Your task to perform on an android device: set the timer Image 0: 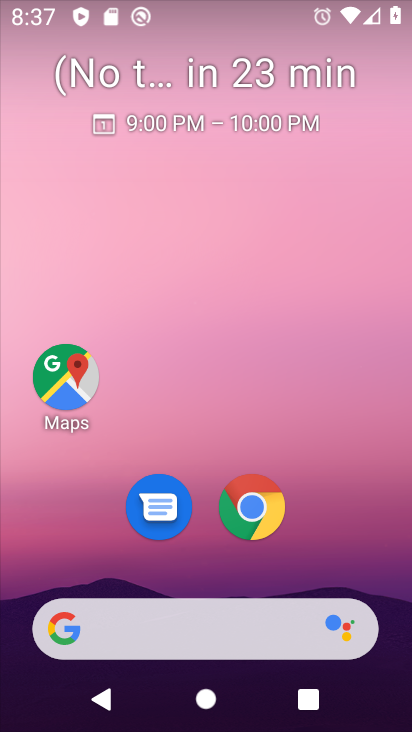
Step 0: drag from (355, 560) to (317, 178)
Your task to perform on an android device: set the timer Image 1: 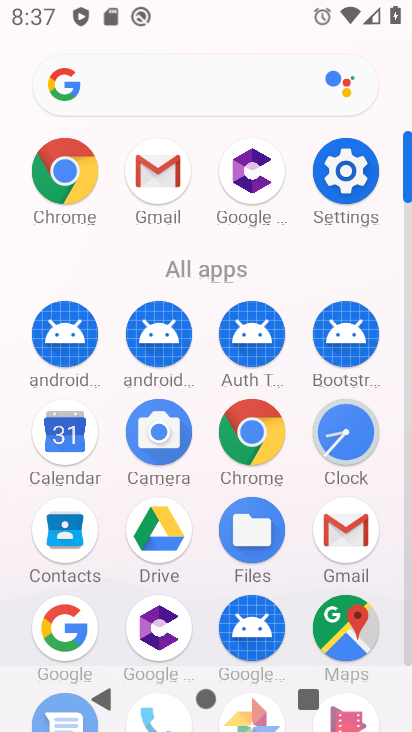
Step 1: click (356, 418)
Your task to perform on an android device: set the timer Image 2: 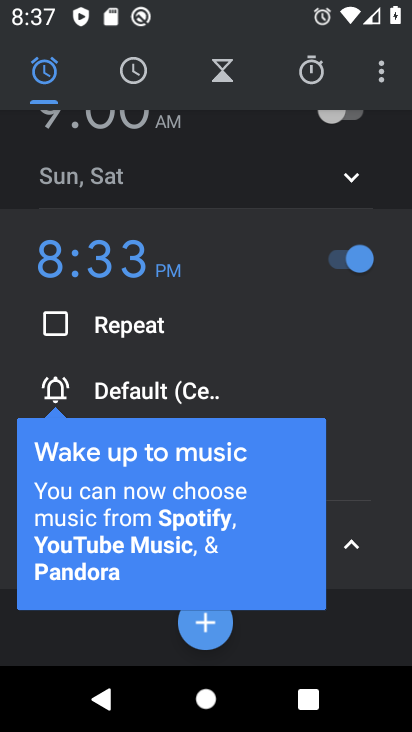
Step 2: click (244, 73)
Your task to perform on an android device: set the timer Image 3: 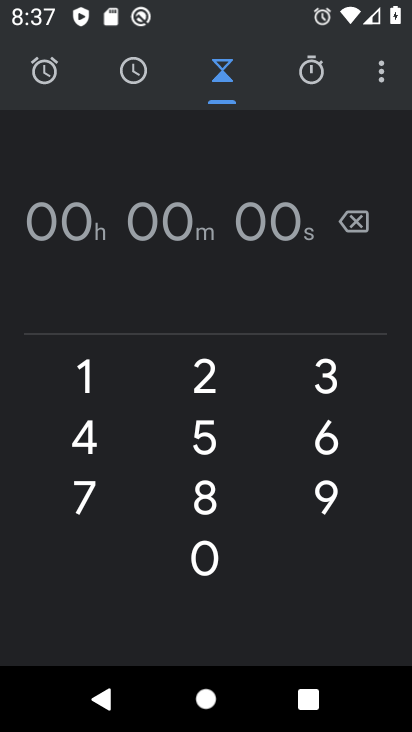
Step 3: type "1000000"
Your task to perform on an android device: set the timer Image 4: 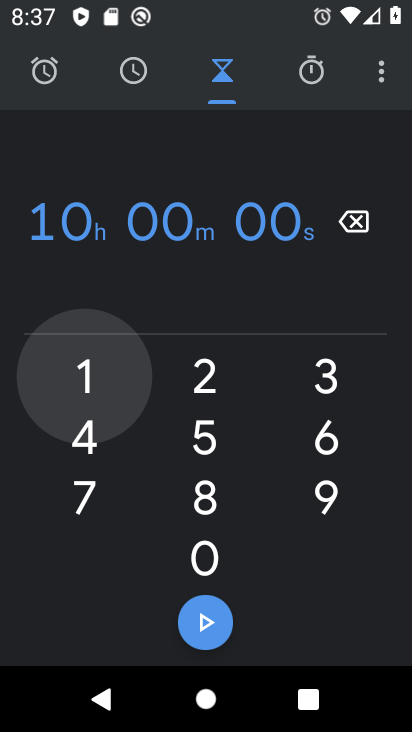
Step 4: click (216, 631)
Your task to perform on an android device: set the timer Image 5: 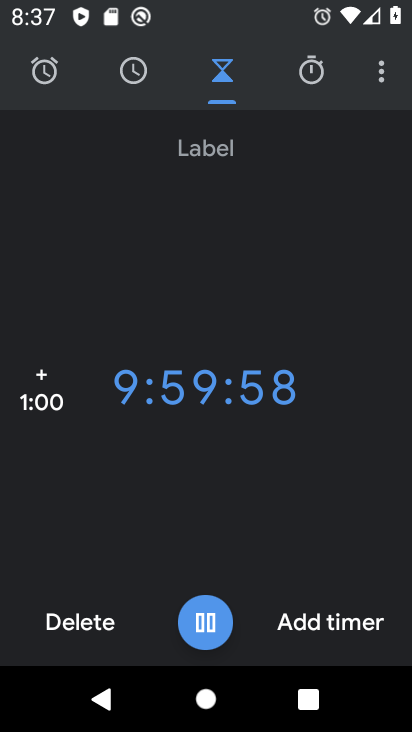
Step 5: task complete